Your task to perform on an android device: toggle wifi Image 0: 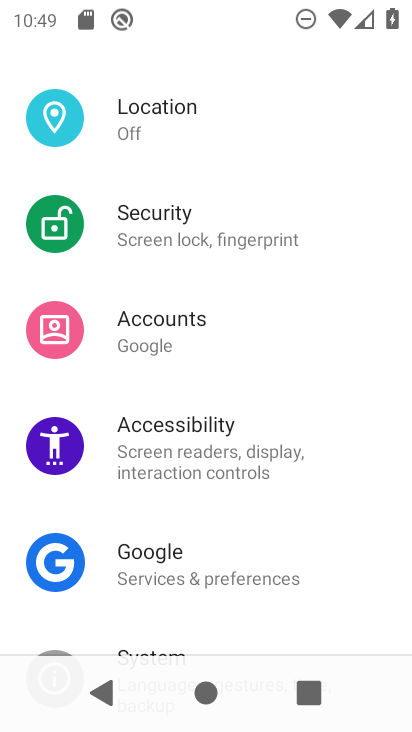
Step 0: drag from (232, 156) to (228, 564)
Your task to perform on an android device: toggle wifi Image 1: 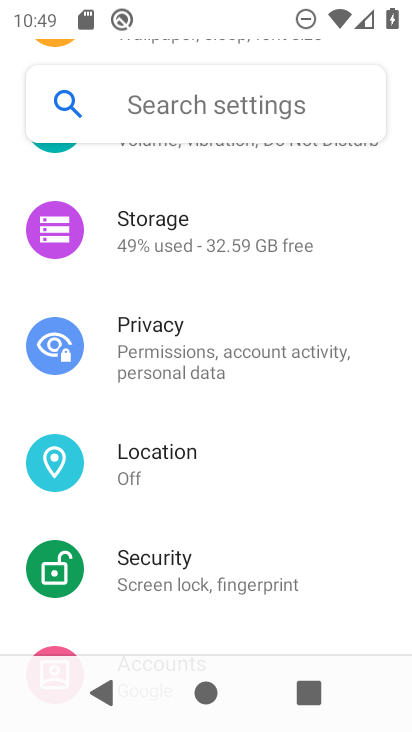
Step 1: drag from (272, 155) to (303, 544)
Your task to perform on an android device: toggle wifi Image 2: 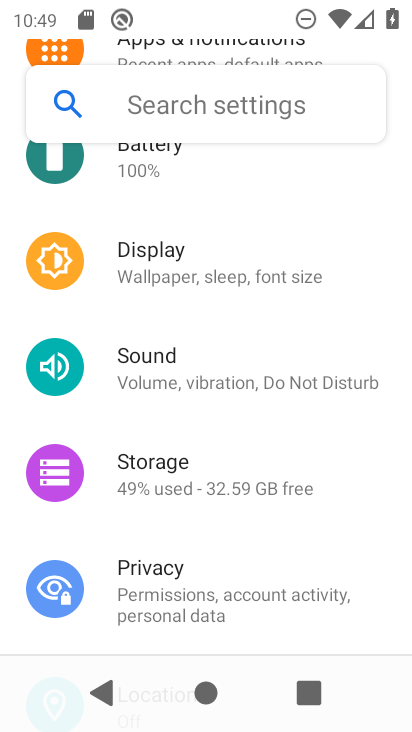
Step 2: drag from (269, 218) to (274, 576)
Your task to perform on an android device: toggle wifi Image 3: 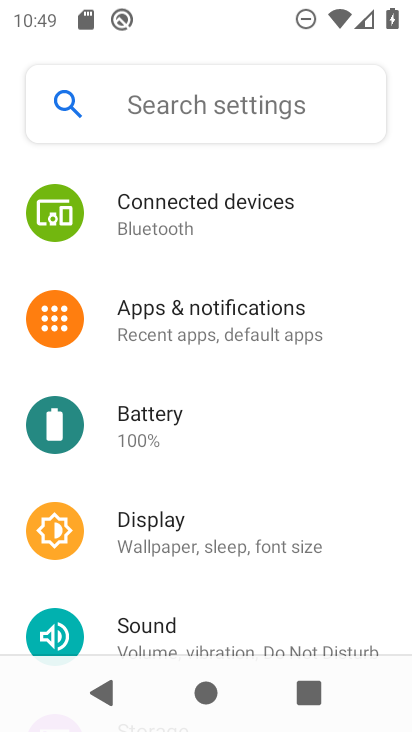
Step 3: drag from (330, 206) to (320, 589)
Your task to perform on an android device: toggle wifi Image 4: 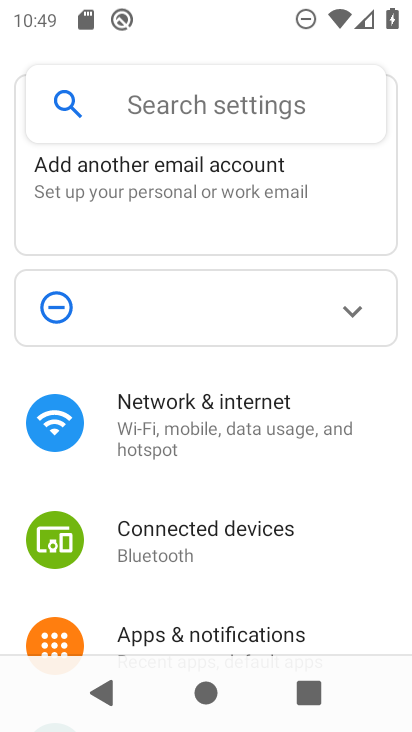
Step 4: click (266, 430)
Your task to perform on an android device: toggle wifi Image 5: 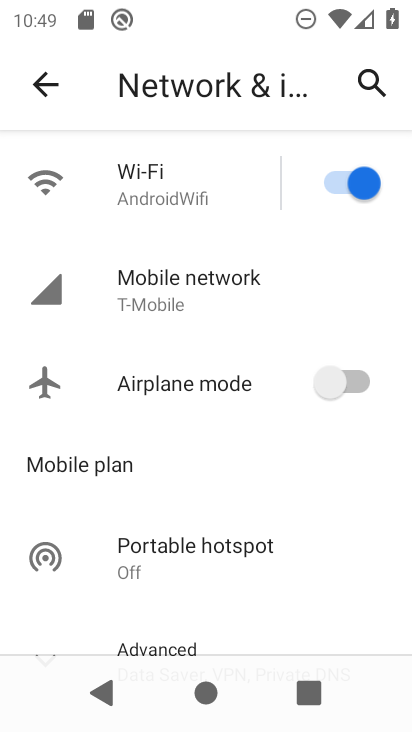
Step 5: click (341, 187)
Your task to perform on an android device: toggle wifi Image 6: 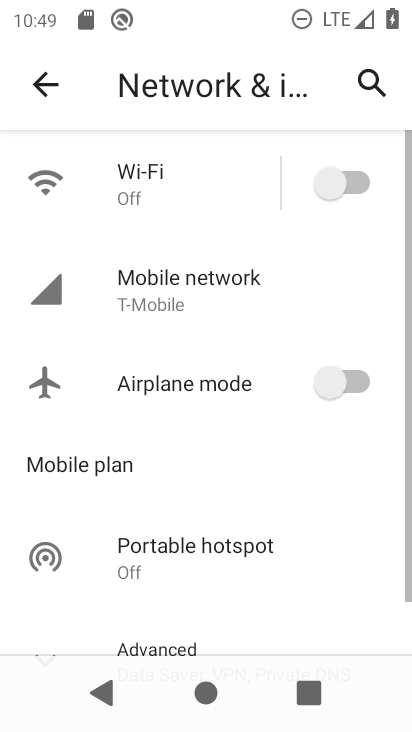
Step 6: task complete